Your task to perform on an android device: change timer sound Image 0: 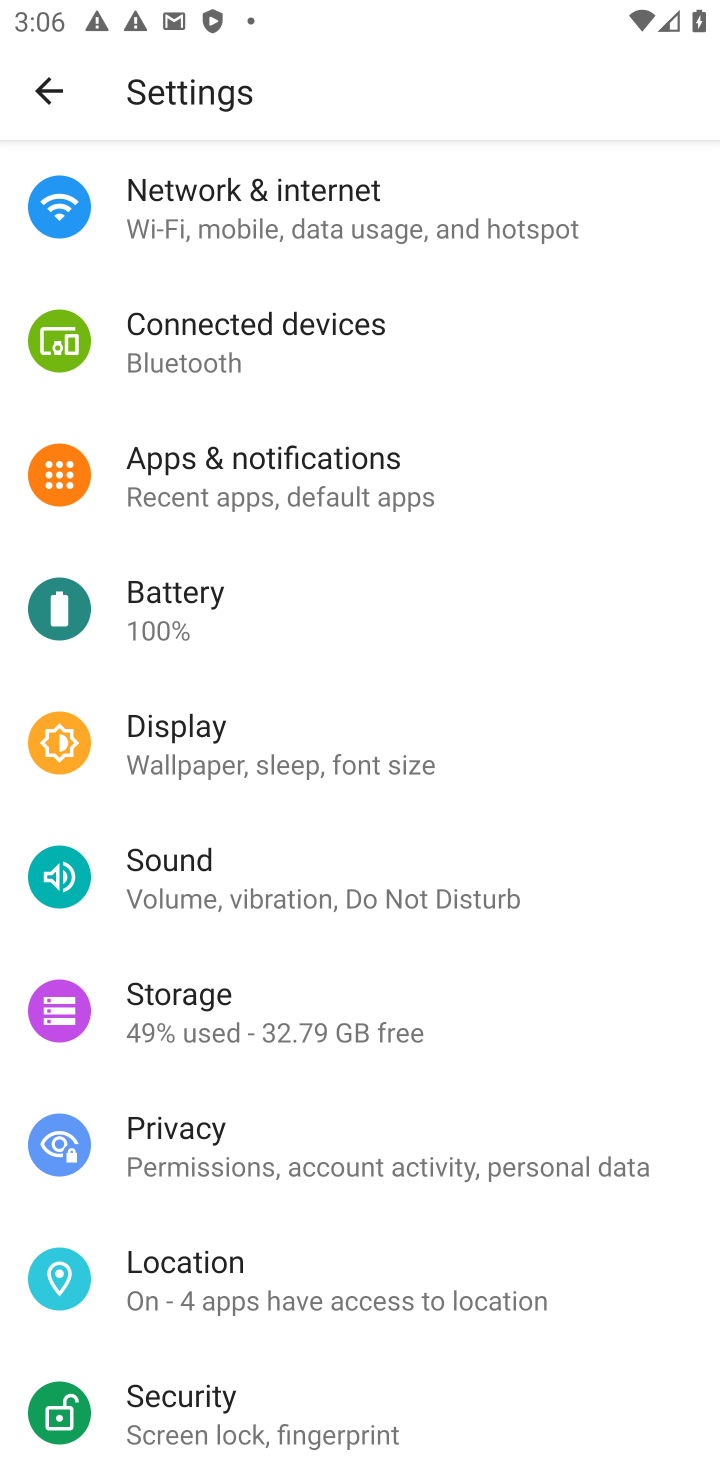
Step 0: press home button
Your task to perform on an android device: change timer sound Image 1: 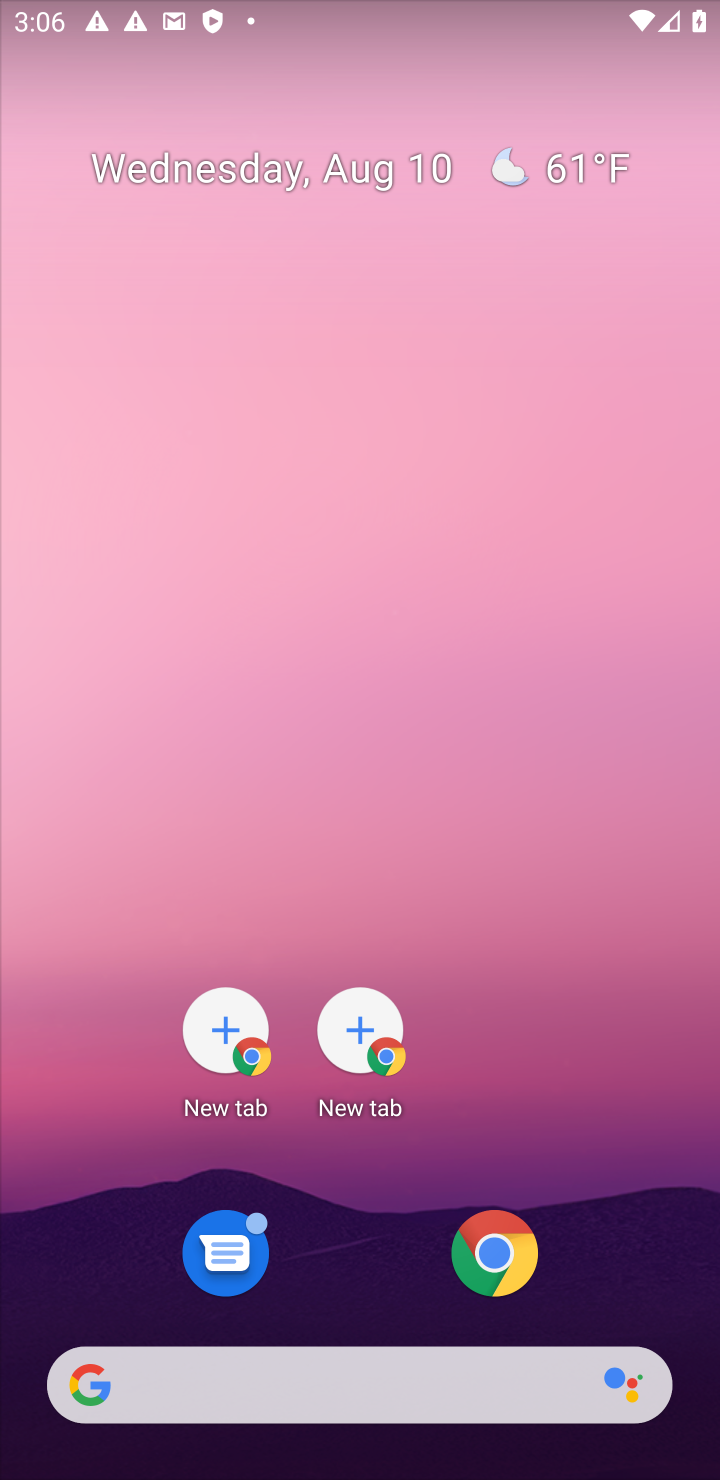
Step 1: drag from (558, 498) to (584, 50)
Your task to perform on an android device: change timer sound Image 2: 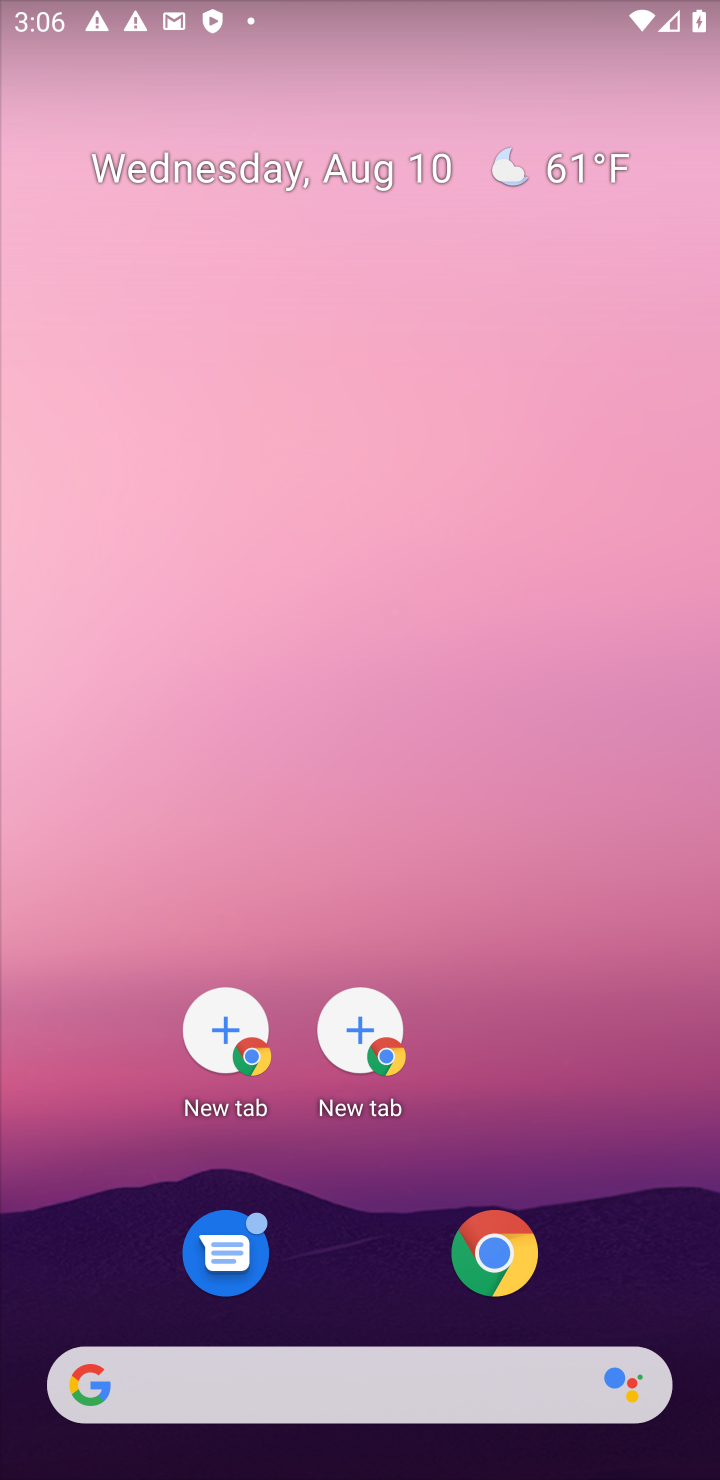
Step 2: drag from (460, 223) to (456, 97)
Your task to perform on an android device: change timer sound Image 3: 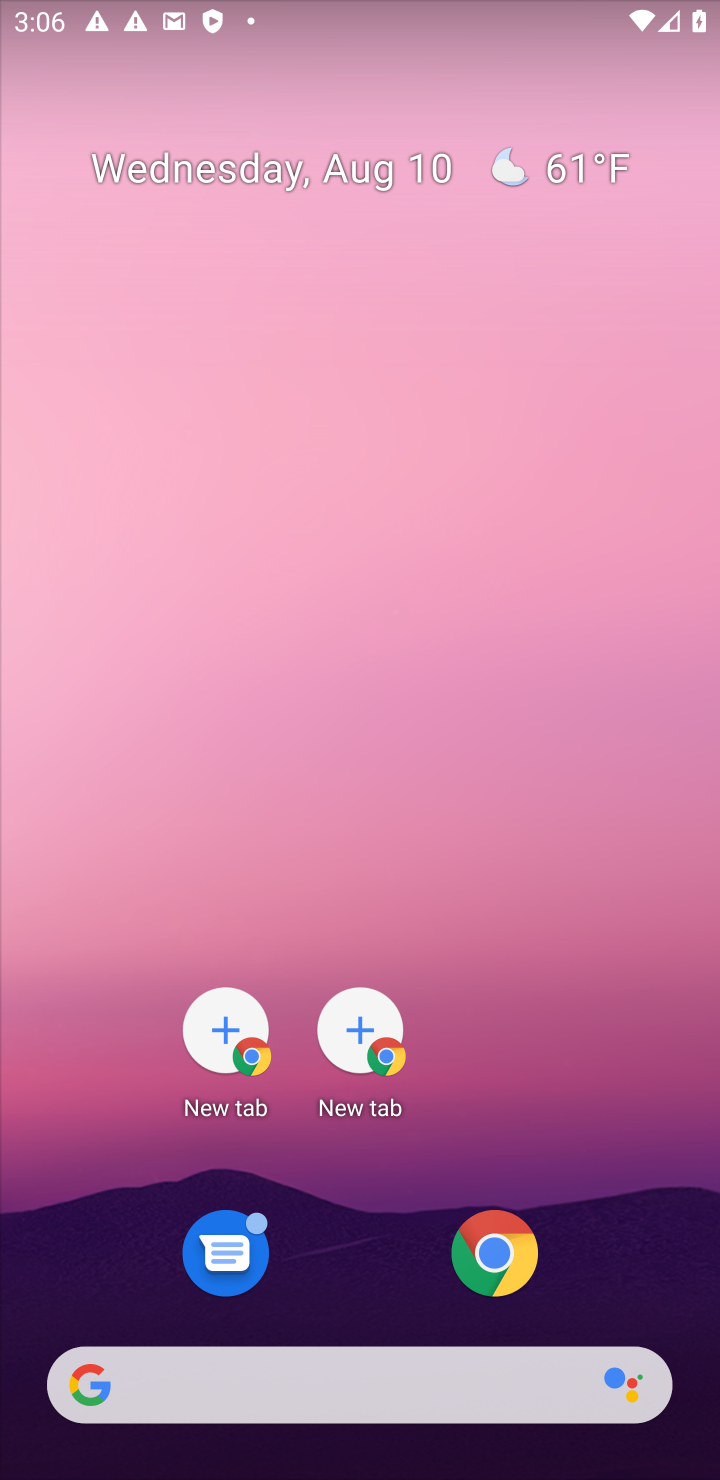
Step 3: drag from (612, 797) to (551, 68)
Your task to perform on an android device: change timer sound Image 4: 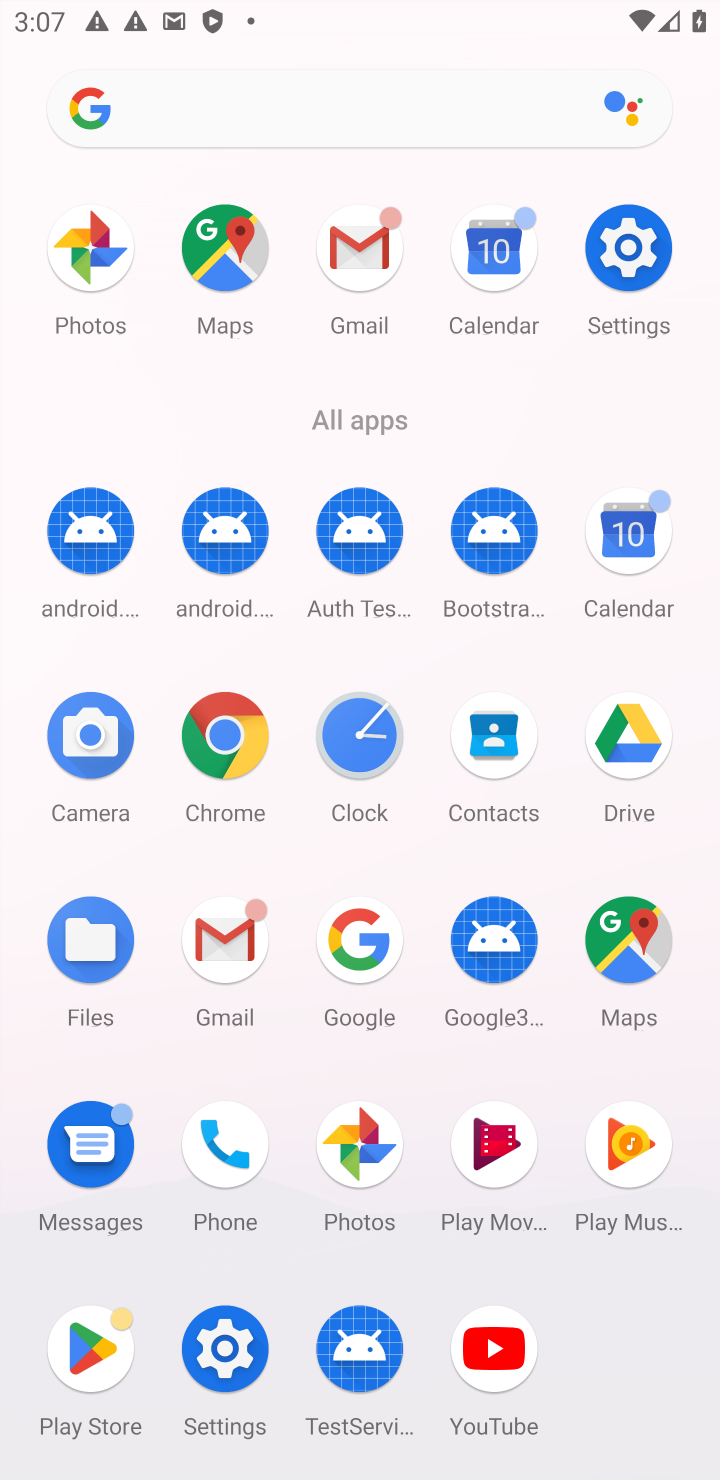
Step 4: click (641, 269)
Your task to perform on an android device: change timer sound Image 5: 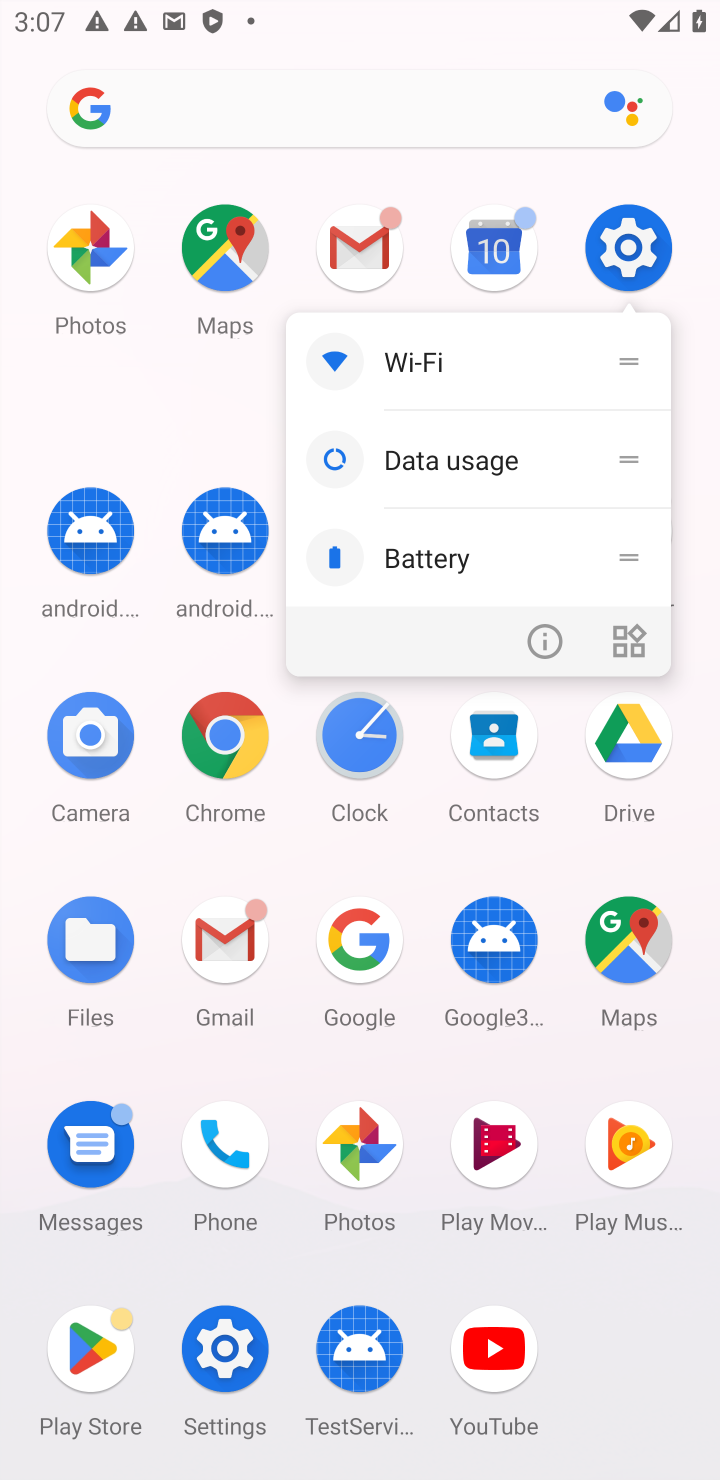
Step 5: click (618, 265)
Your task to perform on an android device: change timer sound Image 6: 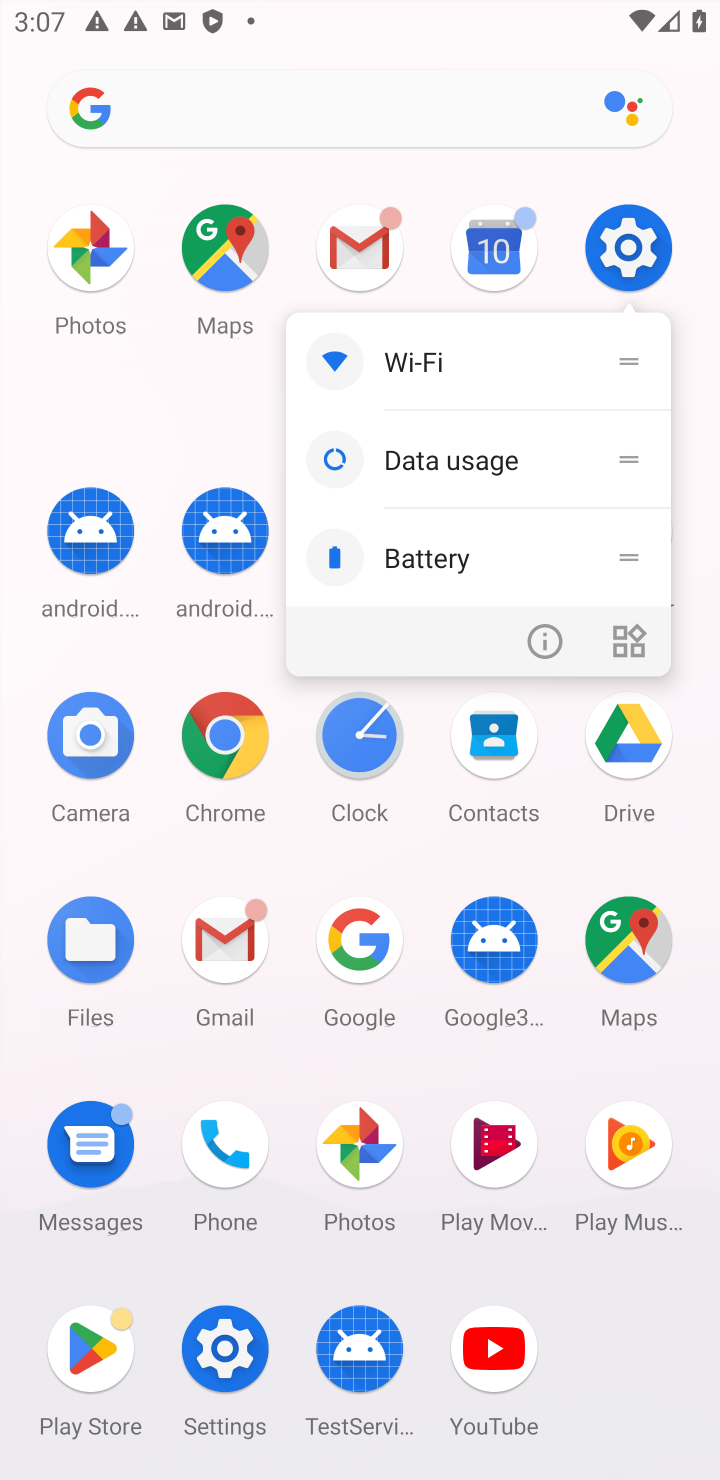
Step 6: click (373, 743)
Your task to perform on an android device: change timer sound Image 7: 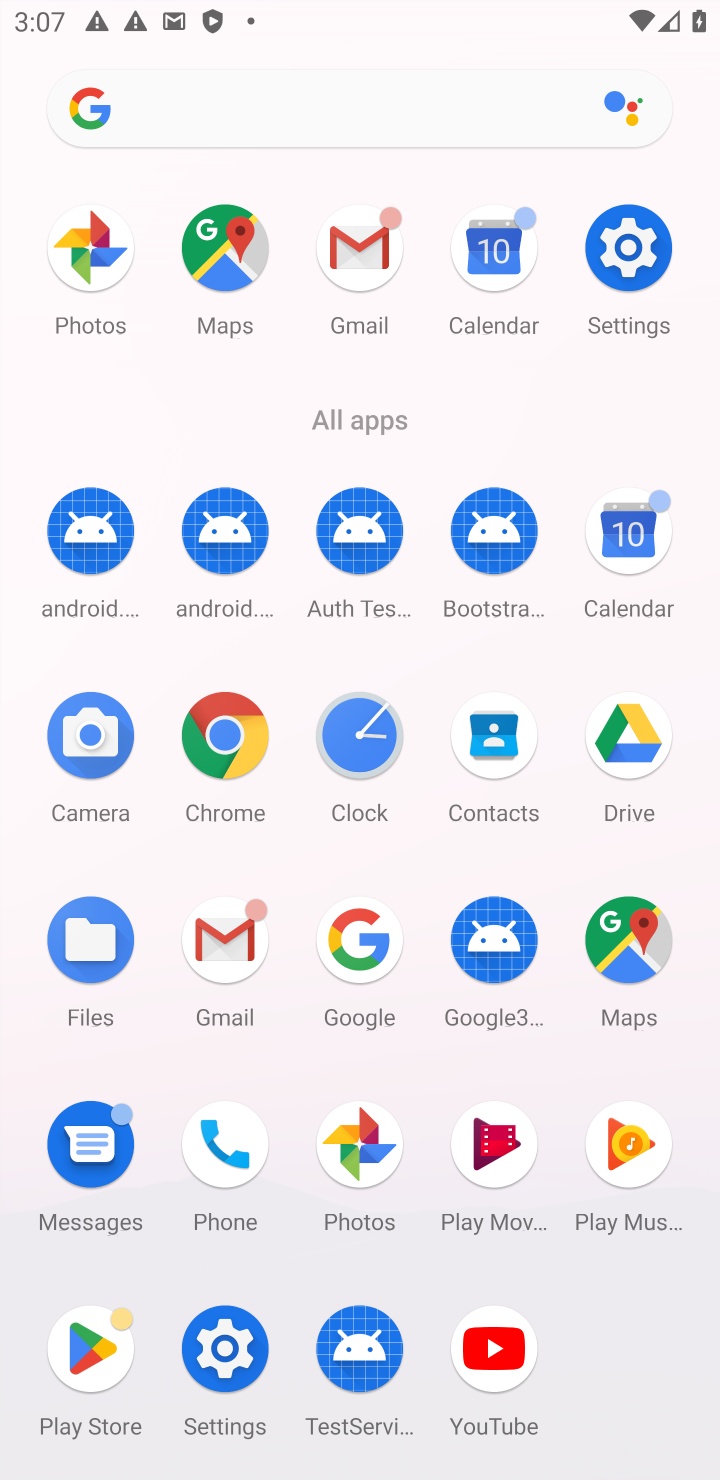
Step 7: click (383, 747)
Your task to perform on an android device: change timer sound Image 8: 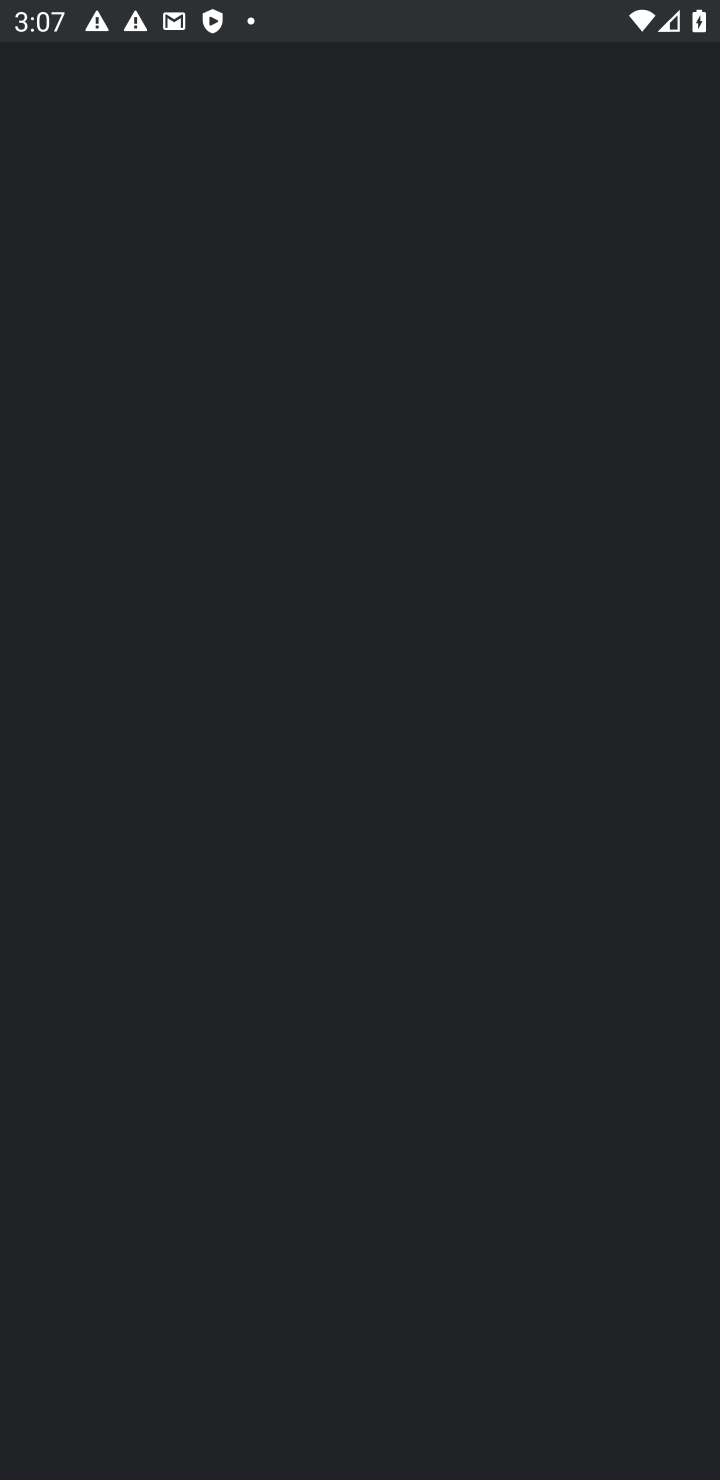
Step 8: task complete